Your task to perform on an android device: change keyboard looks Image 0: 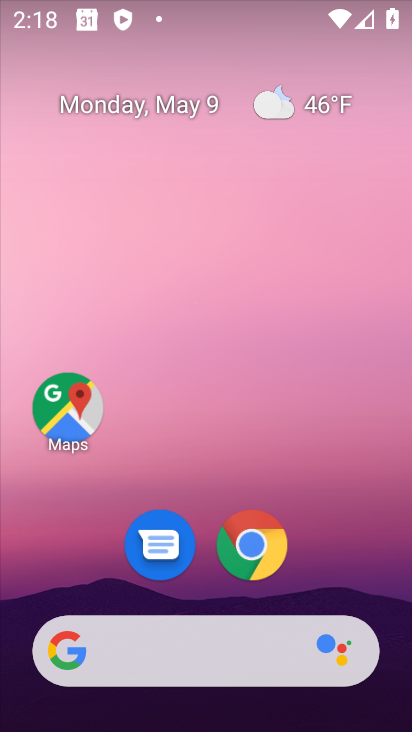
Step 0: drag from (208, 598) to (215, 203)
Your task to perform on an android device: change keyboard looks Image 1: 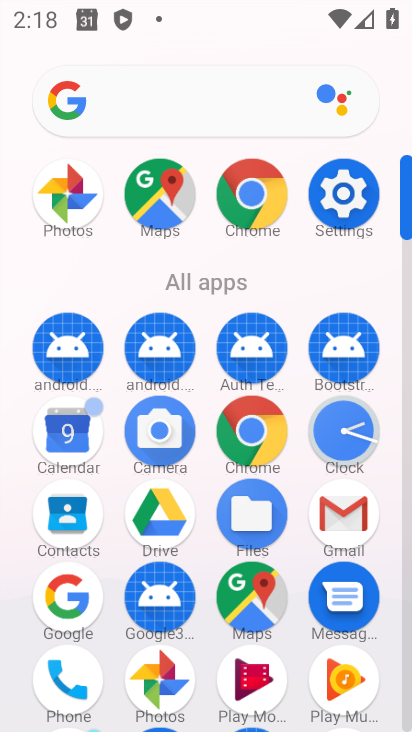
Step 1: click (363, 197)
Your task to perform on an android device: change keyboard looks Image 2: 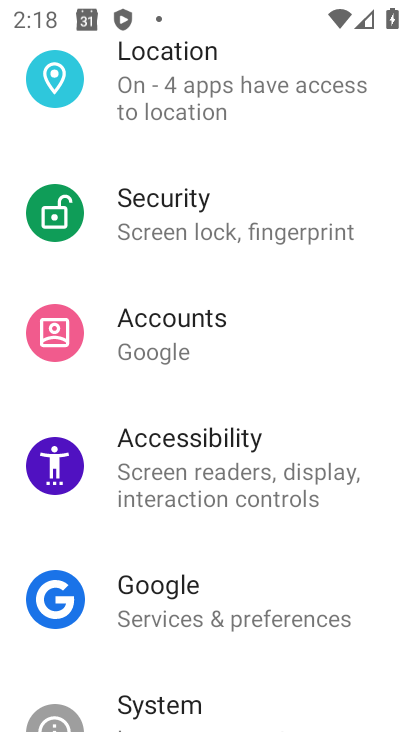
Step 2: drag from (249, 669) to (296, 228)
Your task to perform on an android device: change keyboard looks Image 3: 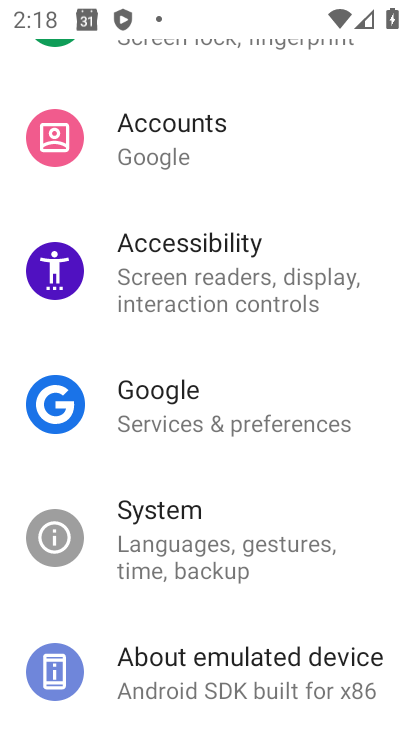
Step 3: click (233, 555)
Your task to perform on an android device: change keyboard looks Image 4: 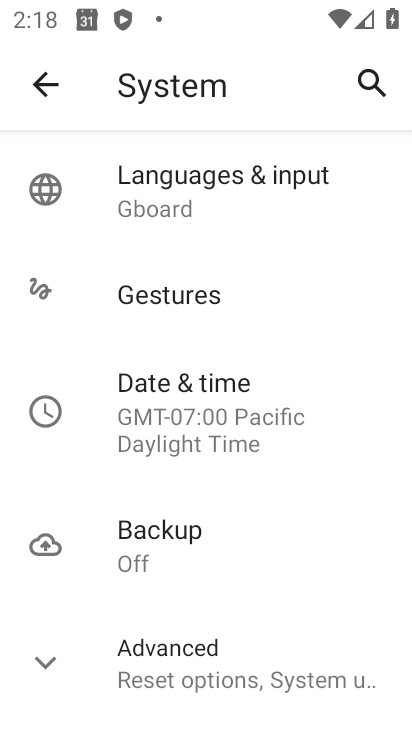
Step 4: click (200, 205)
Your task to perform on an android device: change keyboard looks Image 5: 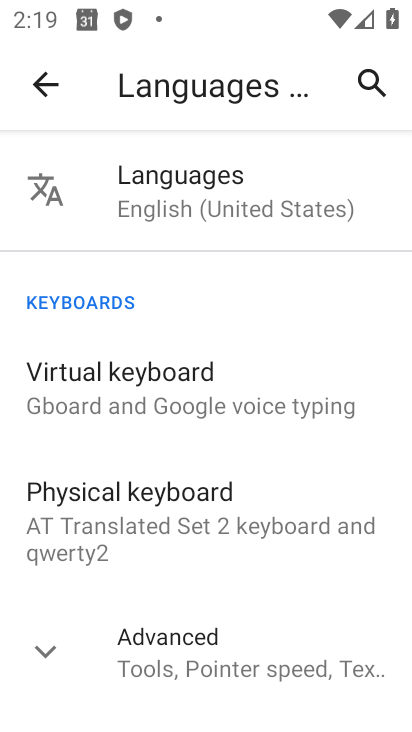
Step 5: click (169, 361)
Your task to perform on an android device: change keyboard looks Image 6: 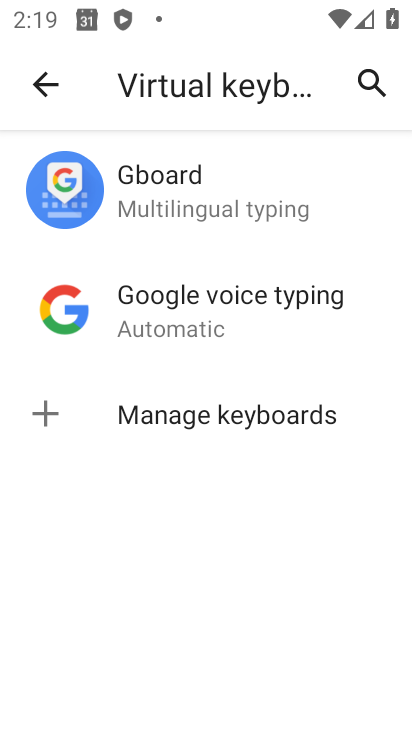
Step 6: click (152, 229)
Your task to perform on an android device: change keyboard looks Image 7: 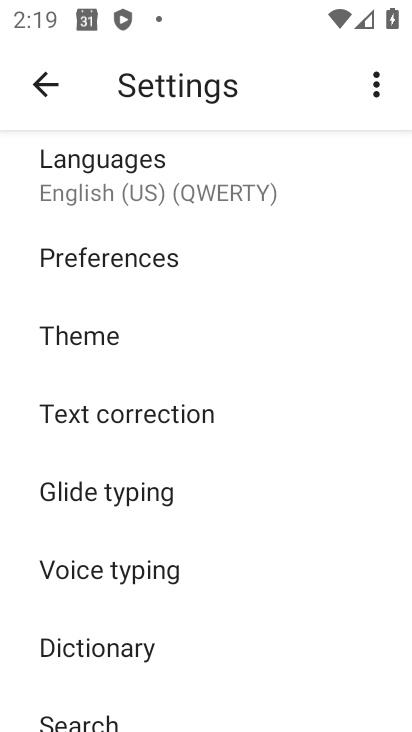
Step 7: click (135, 340)
Your task to perform on an android device: change keyboard looks Image 8: 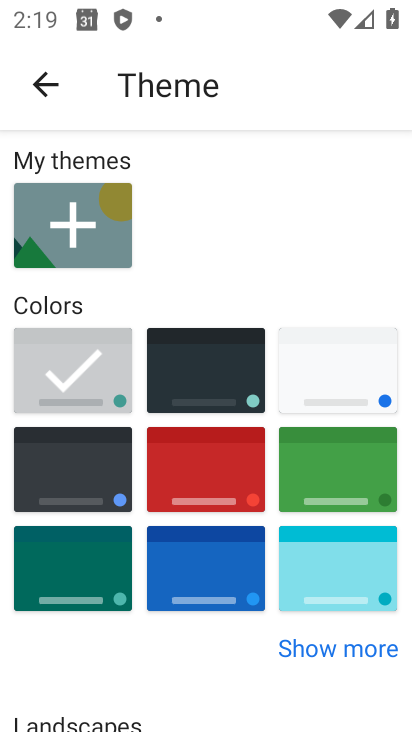
Step 8: click (373, 379)
Your task to perform on an android device: change keyboard looks Image 9: 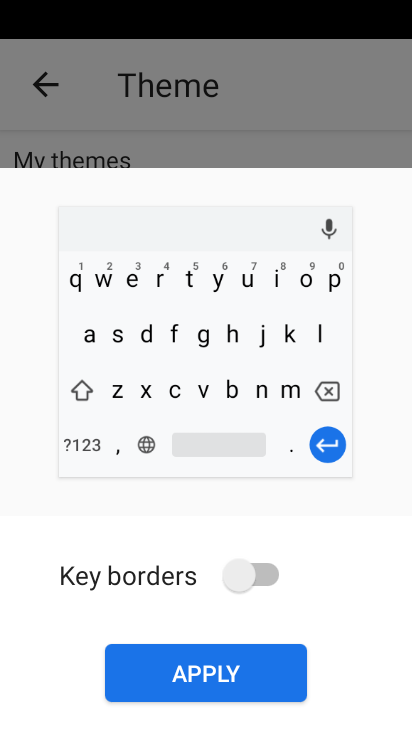
Step 9: click (244, 663)
Your task to perform on an android device: change keyboard looks Image 10: 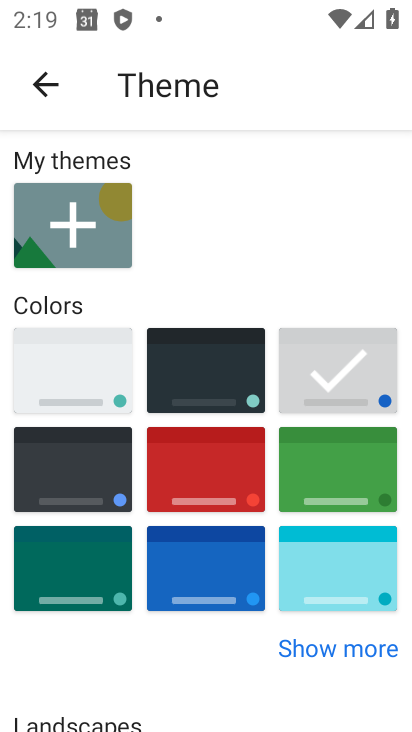
Step 10: task complete